Your task to perform on an android device: Open the calendar app, open the side menu, and click the "Day" option Image 0: 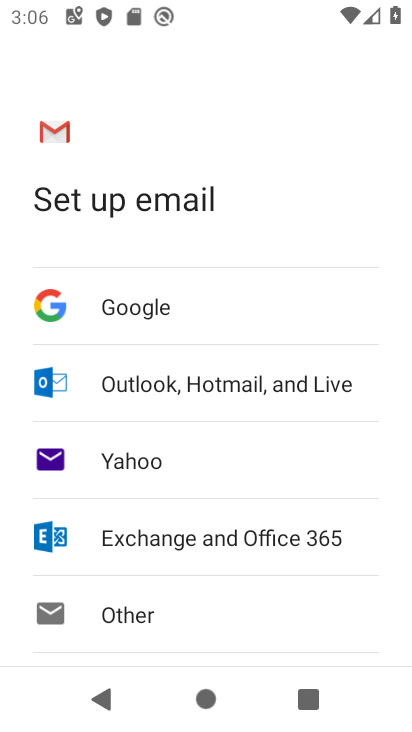
Step 0: press back button
Your task to perform on an android device: Open the calendar app, open the side menu, and click the "Day" option Image 1: 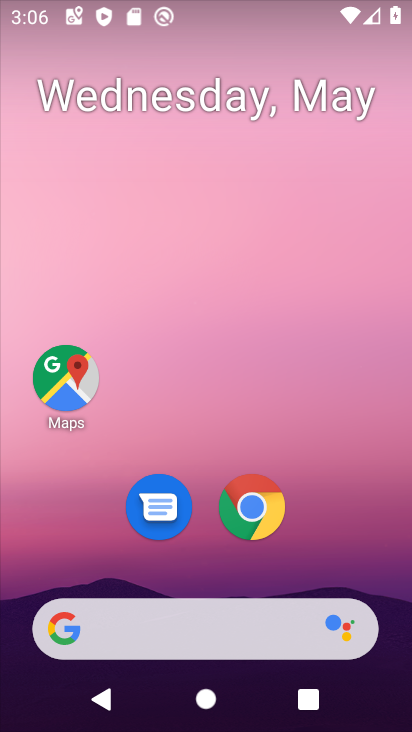
Step 1: drag from (215, 536) to (242, 7)
Your task to perform on an android device: Open the calendar app, open the side menu, and click the "Day" option Image 2: 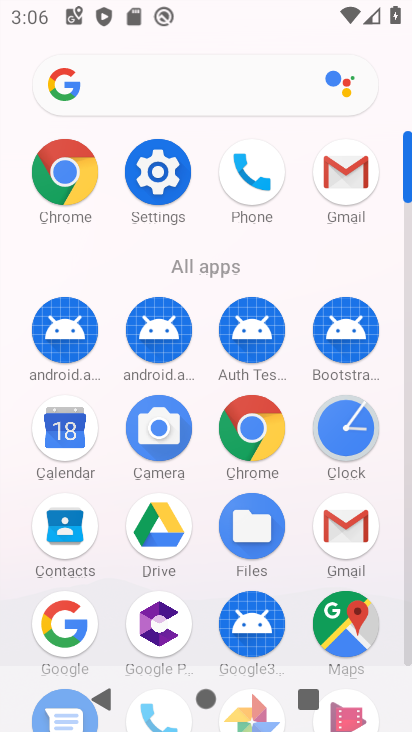
Step 2: click (74, 431)
Your task to perform on an android device: Open the calendar app, open the side menu, and click the "Day" option Image 3: 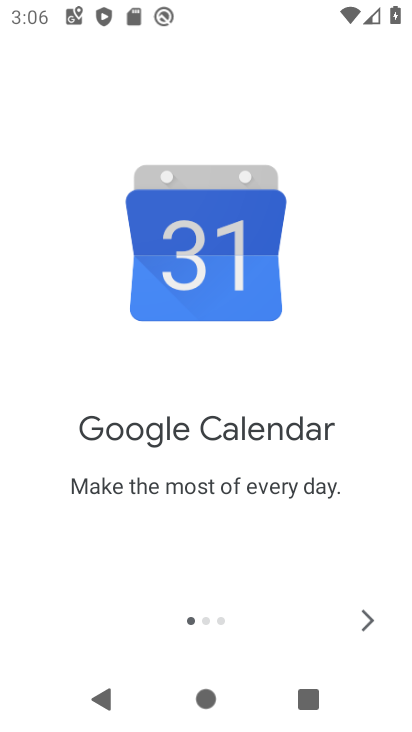
Step 3: click (356, 631)
Your task to perform on an android device: Open the calendar app, open the side menu, and click the "Day" option Image 4: 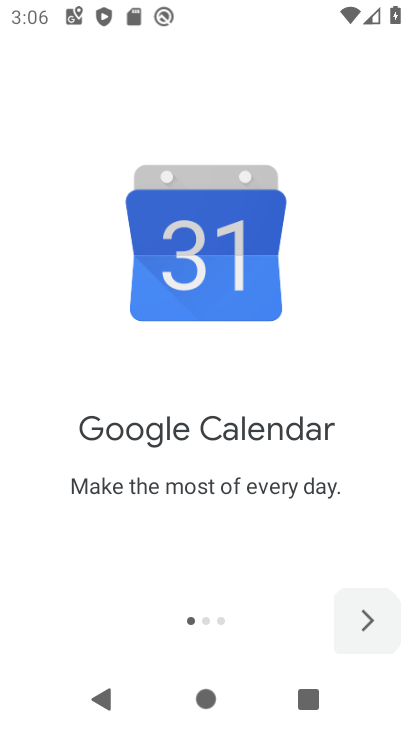
Step 4: click (356, 631)
Your task to perform on an android device: Open the calendar app, open the side menu, and click the "Day" option Image 5: 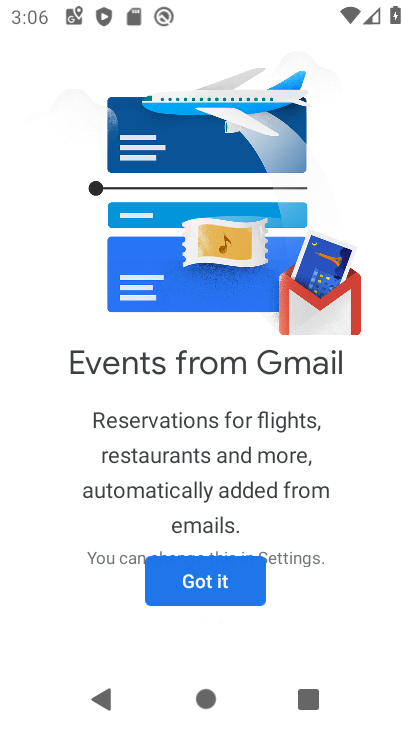
Step 5: click (361, 620)
Your task to perform on an android device: Open the calendar app, open the side menu, and click the "Day" option Image 6: 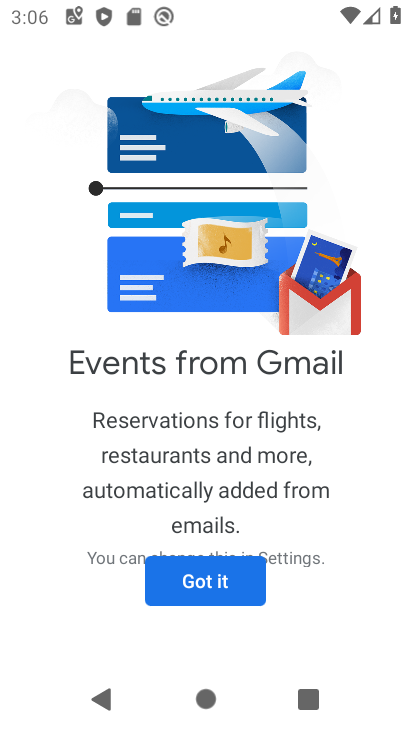
Step 6: click (259, 582)
Your task to perform on an android device: Open the calendar app, open the side menu, and click the "Day" option Image 7: 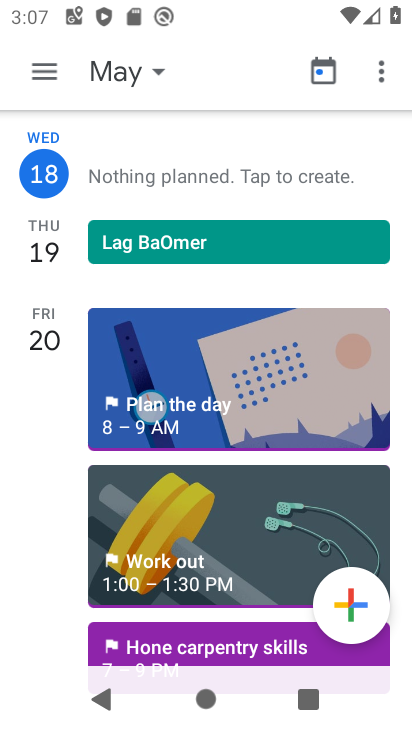
Step 7: click (41, 79)
Your task to perform on an android device: Open the calendar app, open the side menu, and click the "Day" option Image 8: 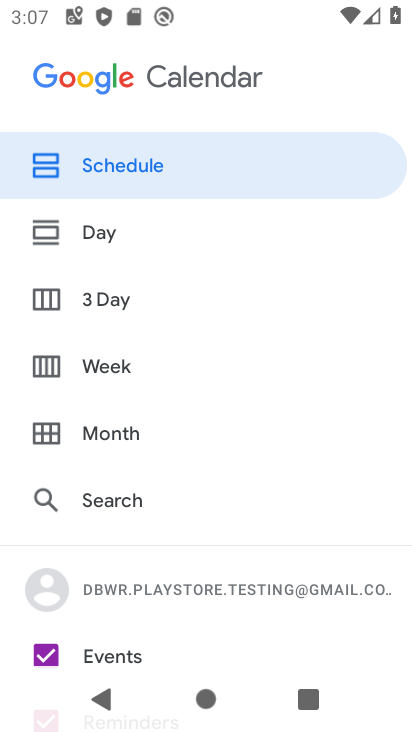
Step 8: click (103, 231)
Your task to perform on an android device: Open the calendar app, open the side menu, and click the "Day" option Image 9: 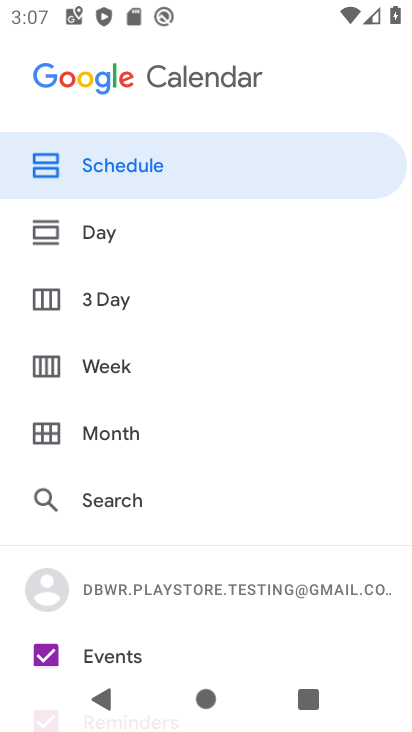
Step 9: click (129, 235)
Your task to perform on an android device: Open the calendar app, open the side menu, and click the "Day" option Image 10: 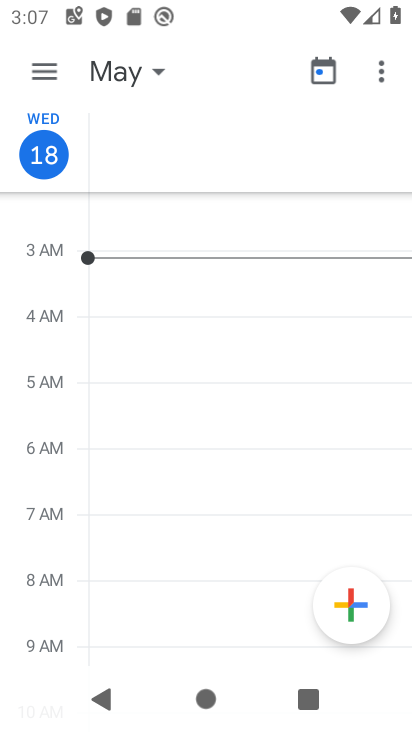
Step 10: task complete